Your task to perform on an android device: turn on improve location accuracy Image 0: 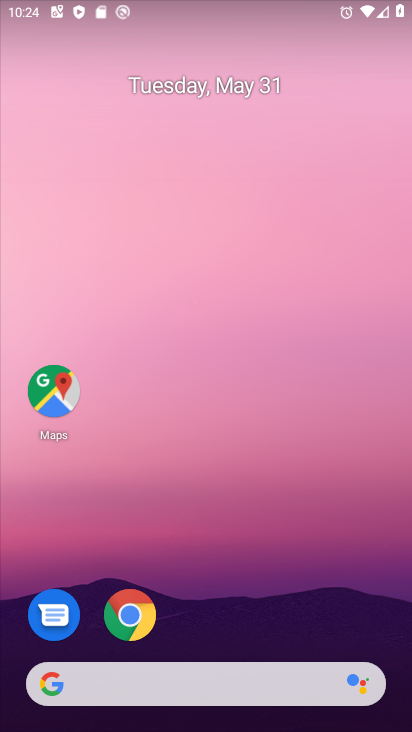
Step 0: drag from (325, 428) to (400, 402)
Your task to perform on an android device: turn on improve location accuracy Image 1: 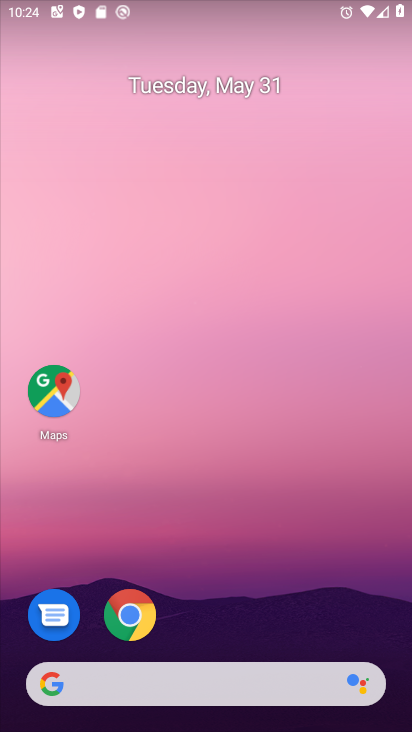
Step 1: drag from (295, 599) to (399, 70)
Your task to perform on an android device: turn on improve location accuracy Image 2: 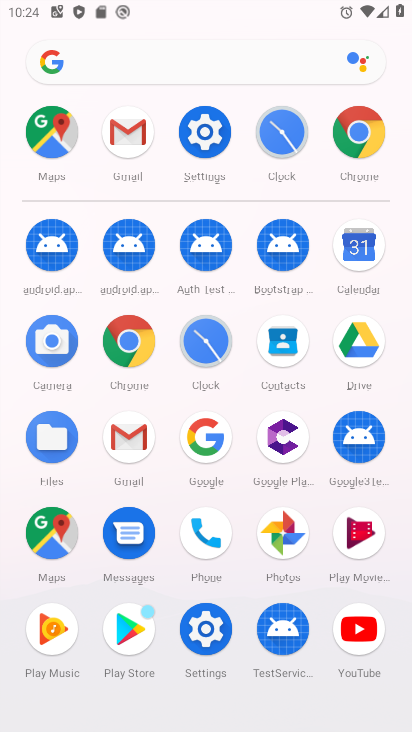
Step 2: click (207, 149)
Your task to perform on an android device: turn on improve location accuracy Image 3: 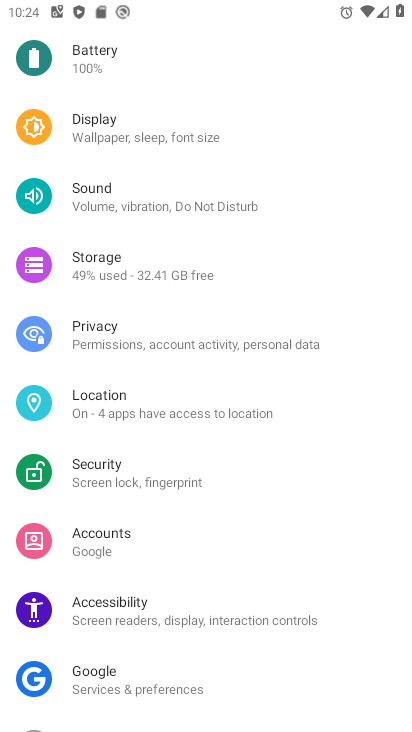
Step 3: click (139, 403)
Your task to perform on an android device: turn on improve location accuracy Image 4: 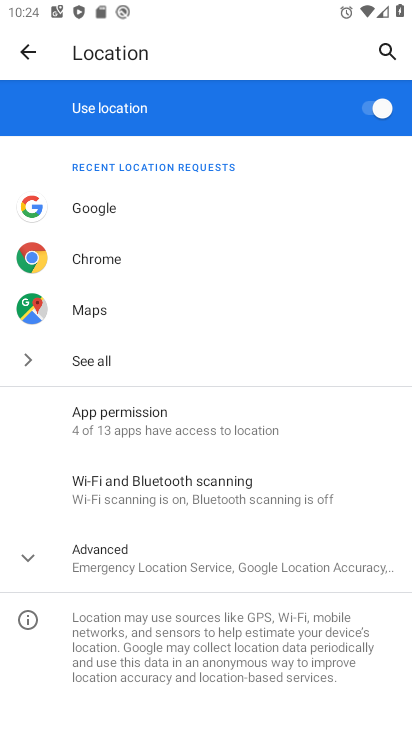
Step 4: drag from (265, 583) to (340, 279)
Your task to perform on an android device: turn on improve location accuracy Image 5: 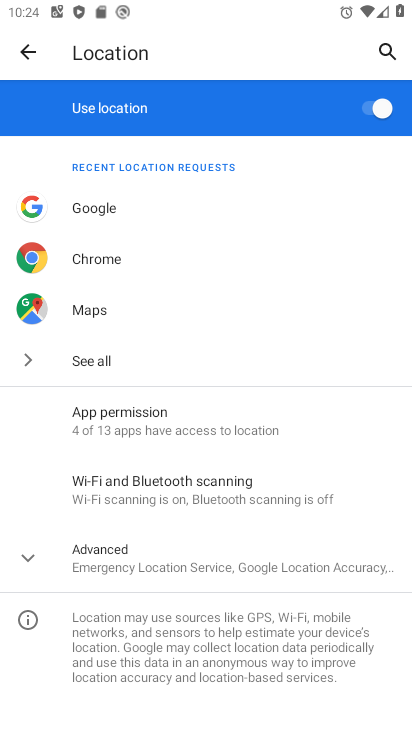
Step 5: click (231, 573)
Your task to perform on an android device: turn on improve location accuracy Image 6: 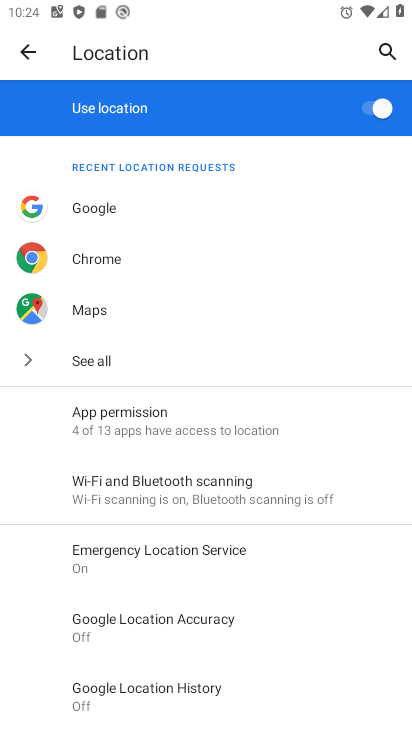
Step 6: click (159, 610)
Your task to perform on an android device: turn on improve location accuracy Image 7: 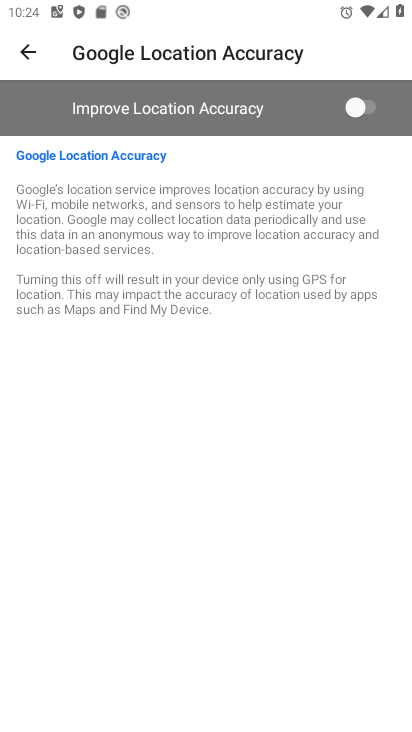
Step 7: click (372, 112)
Your task to perform on an android device: turn on improve location accuracy Image 8: 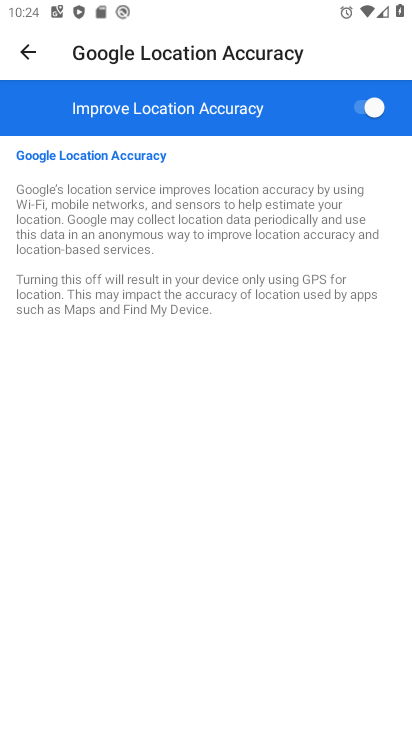
Step 8: task complete